Your task to perform on an android device: open app "Walmart Shopping & Grocery" (install if not already installed) Image 0: 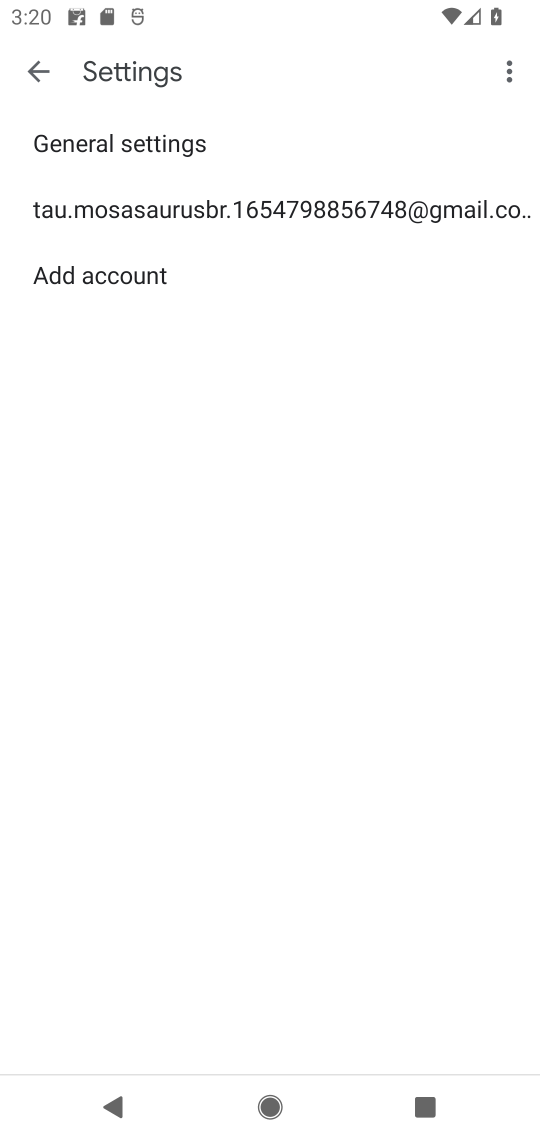
Step 0: press home button
Your task to perform on an android device: open app "Walmart Shopping & Grocery" (install if not already installed) Image 1: 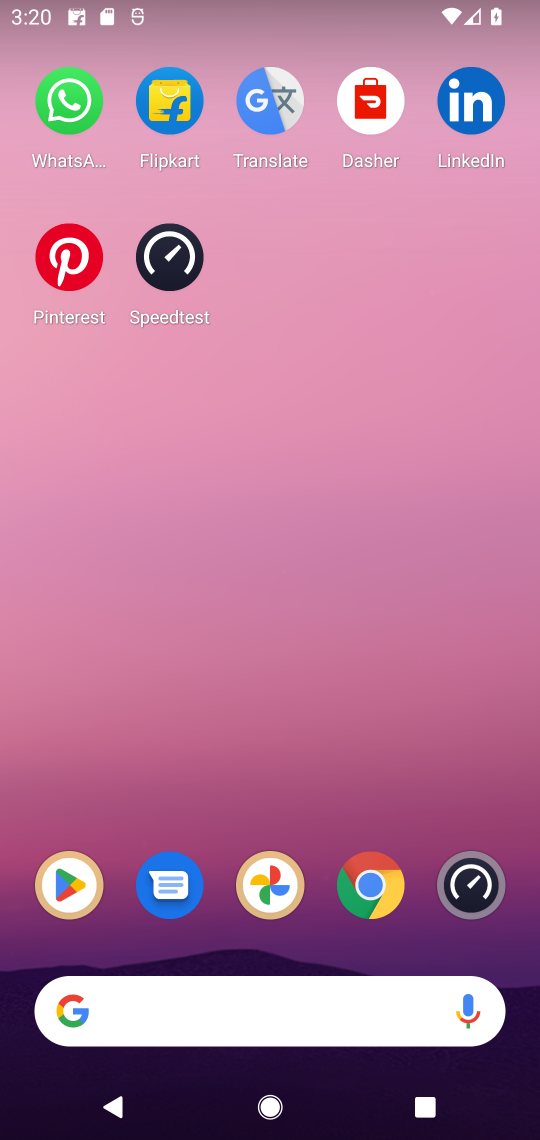
Step 1: click (66, 878)
Your task to perform on an android device: open app "Walmart Shopping & Grocery" (install if not already installed) Image 2: 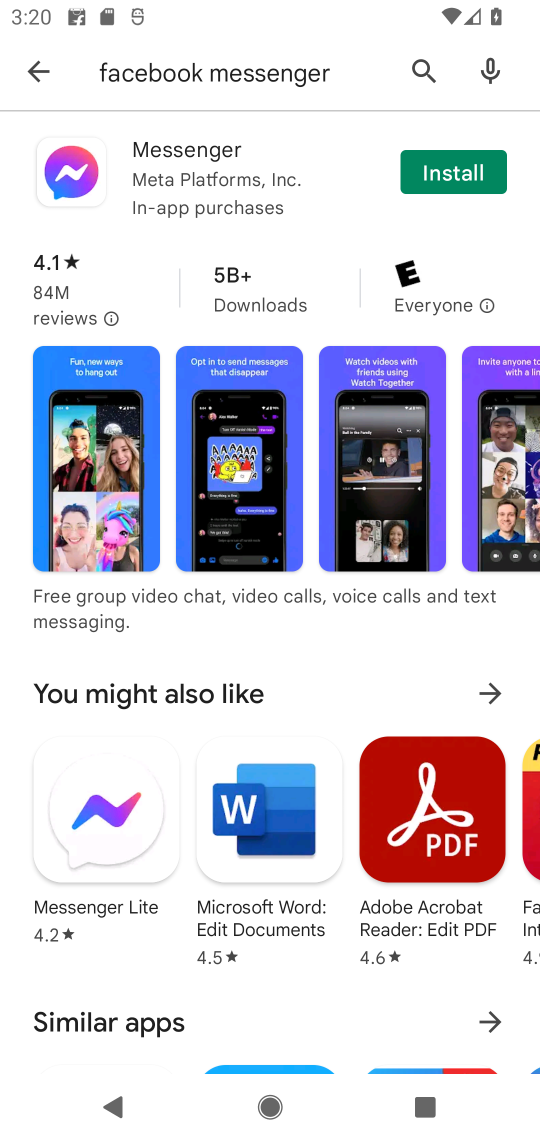
Step 2: click (420, 68)
Your task to perform on an android device: open app "Walmart Shopping & Grocery" (install if not already installed) Image 3: 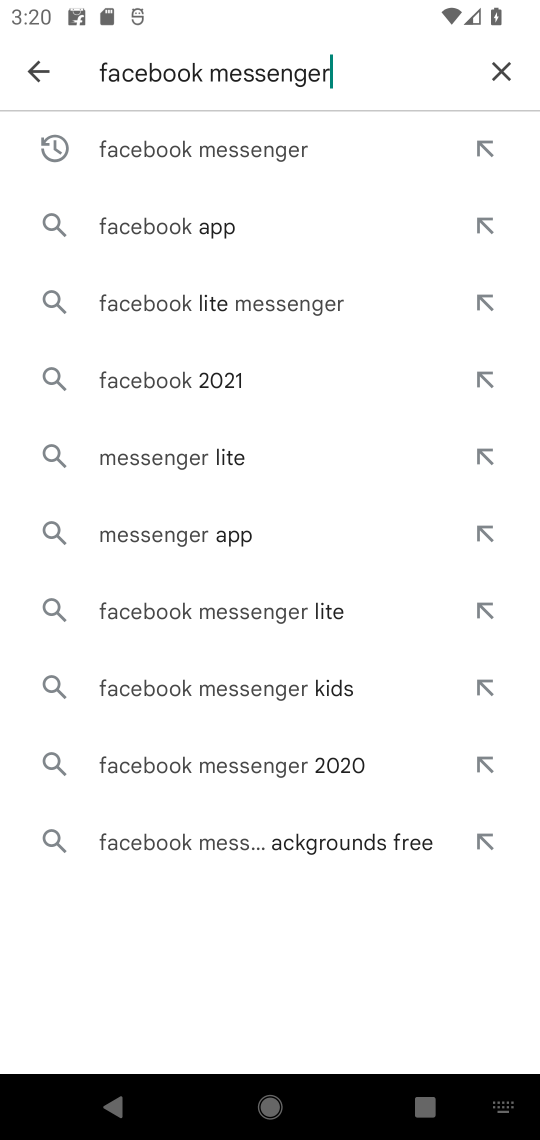
Step 3: click (509, 74)
Your task to perform on an android device: open app "Walmart Shopping & Grocery" (install if not already installed) Image 4: 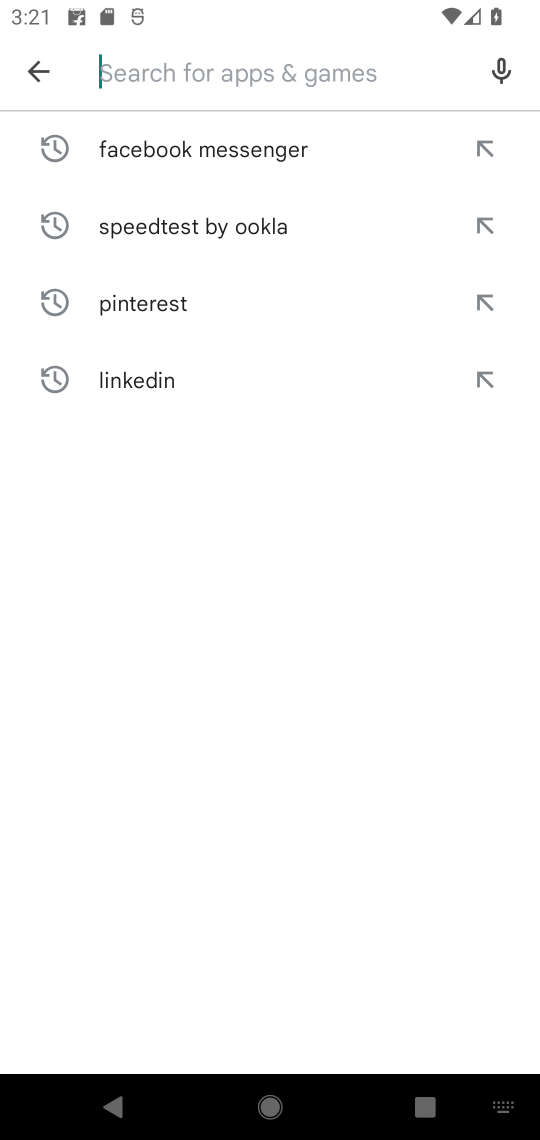
Step 4: type "Walmart Shopping & Grocery"
Your task to perform on an android device: open app "Walmart Shopping & Grocery" (install if not already installed) Image 5: 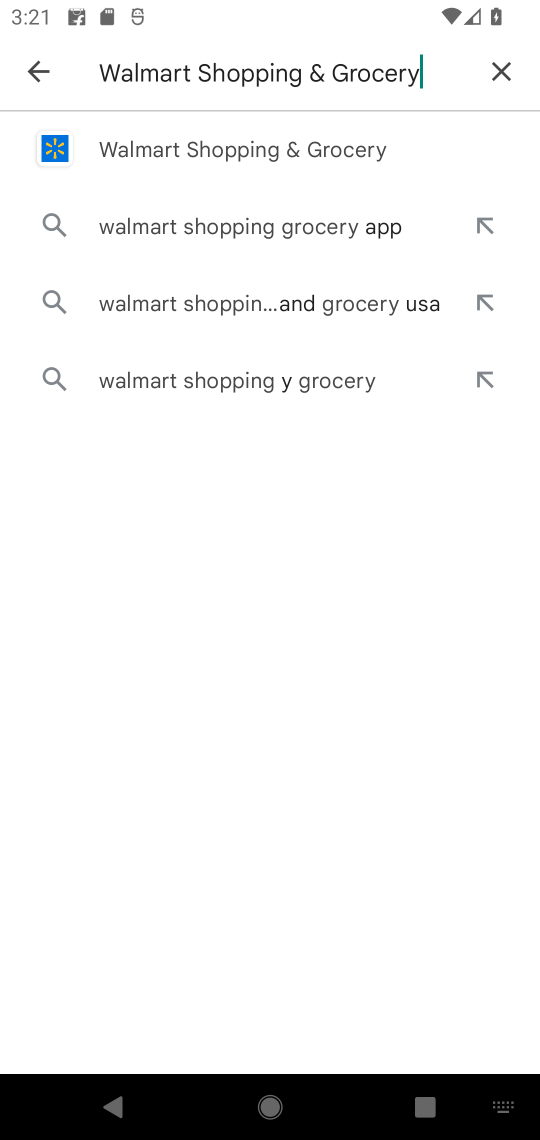
Step 5: click (288, 156)
Your task to perform on an android device: open app "Walmart Shopping & Grocery" (install if not already installed) Image 6: 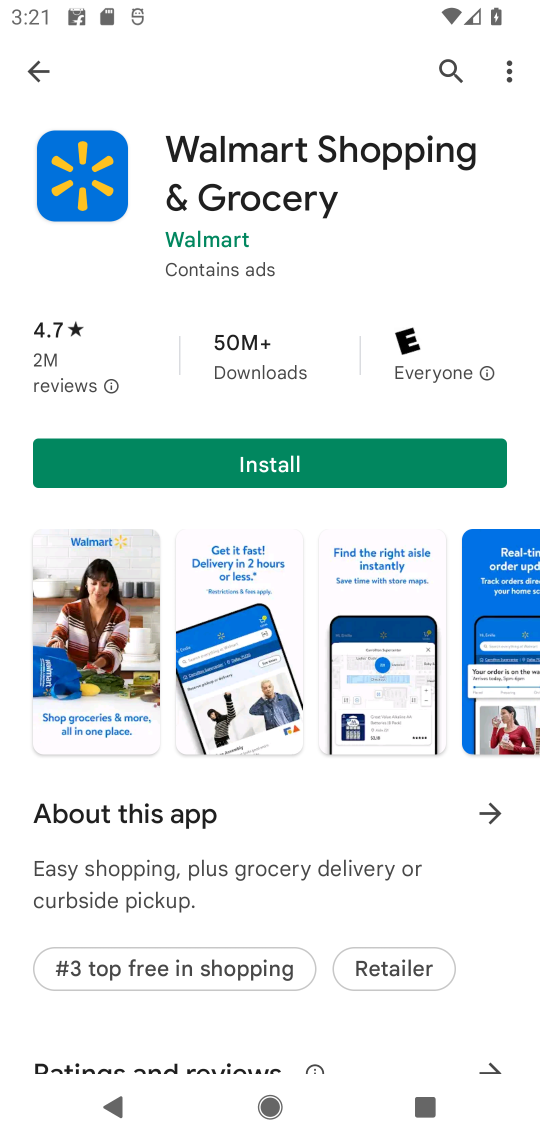
Step 6: click (219, 461)
Your task to perform on an android device: open app "Walmart Shopping & Grocery" (install if not already installed) Image 7: 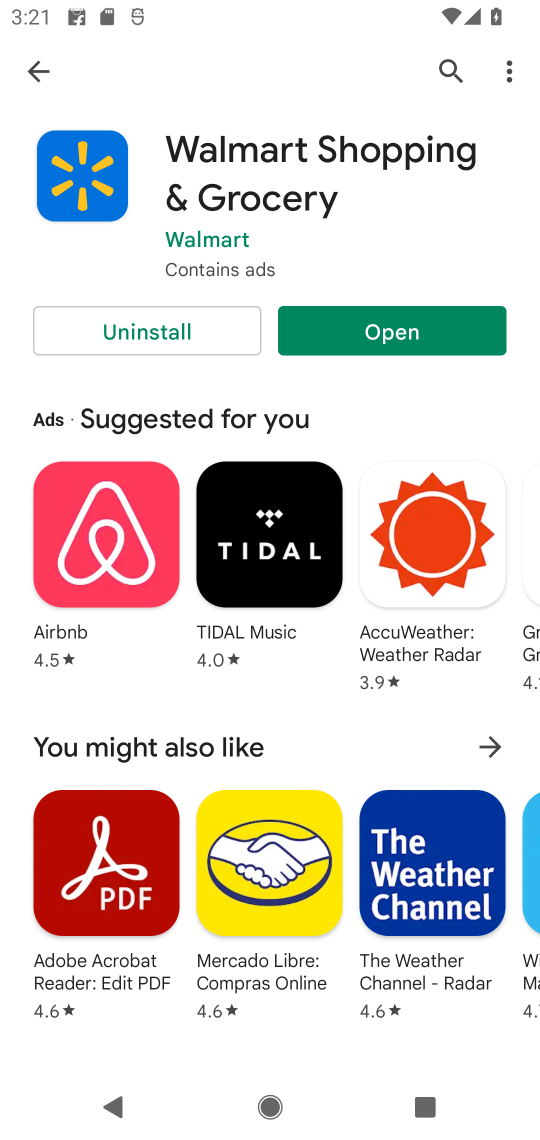
Step 7: click (421, 337)
Your task to perform on an android device: open app "Walmart Shopping & Grocery" (install if not already installed) Image 8: 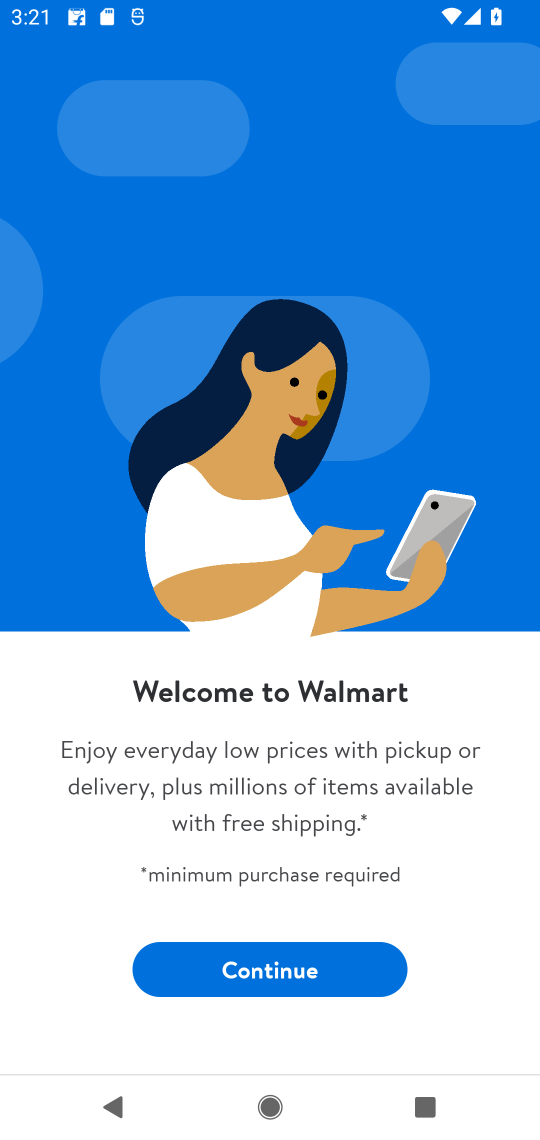
Step 8: task complete